Your task to perform on an android device: turn on location history Image 0: 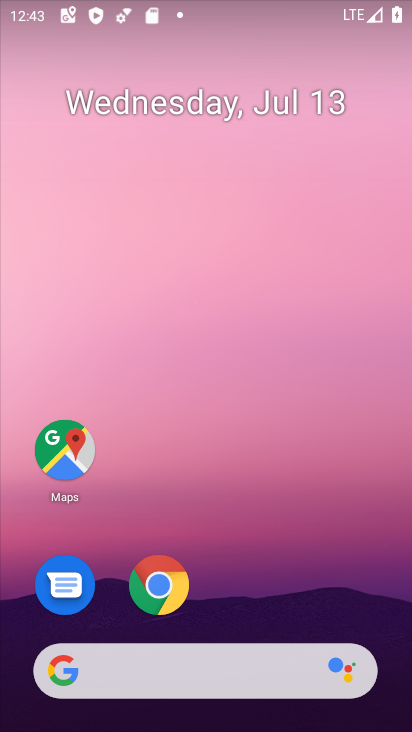
Step 0: drag from (231, 349) to (210, 31)
Your task to perform on an android device: turn on location history Image 1: 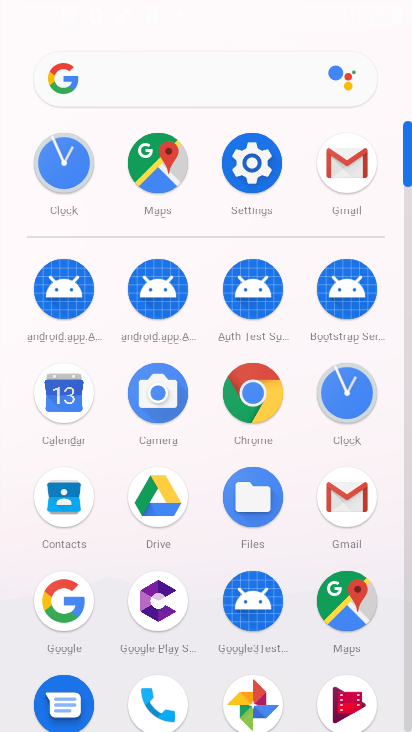
Step 1: click (254, 162)
Your task to perform on an android device: turn on location history Image 2: 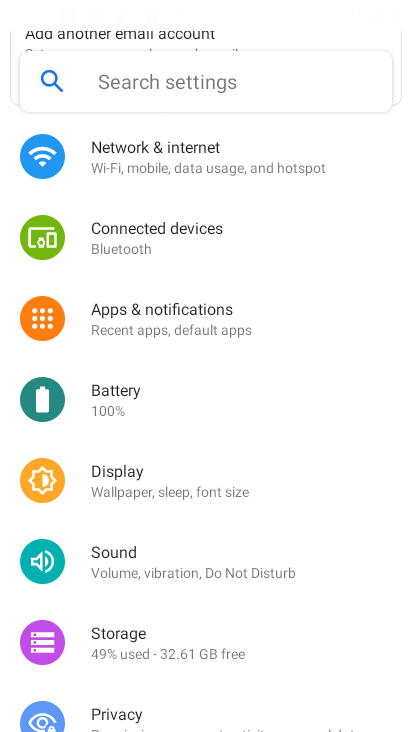
Step 2: drag from (146, 488) to (154, 342)
Your task to perform on an android device: turn on location history Image 3: 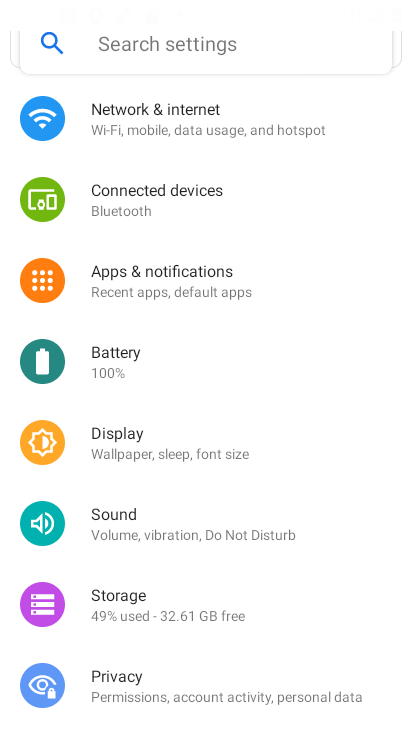
Step 3: drag from (147, 642) to (141, 177)
Your task to perform on an android device: turn on location history Image 4: 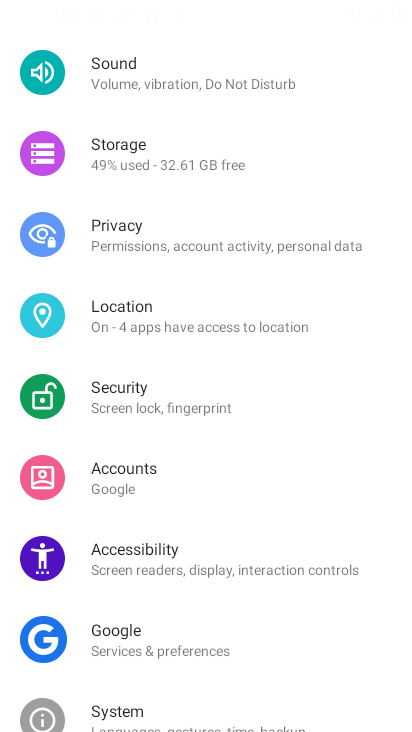
Step 4: click (122, 321)
Your task to perform on an android device: turn on location history Image 5: 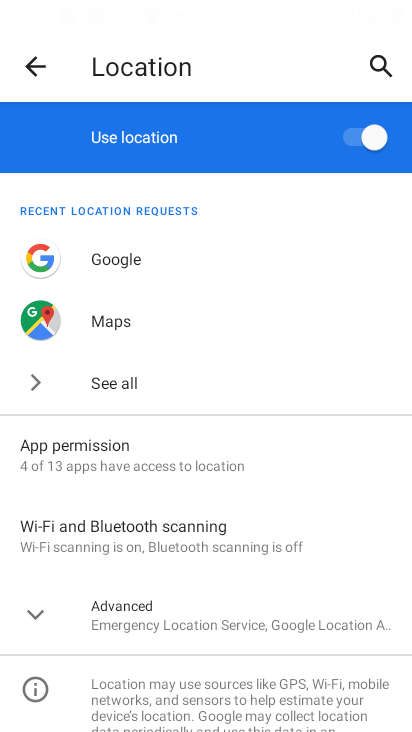
Step 5: click (117, 623)
Your task to perform on an android device: turn on location history Image 6: 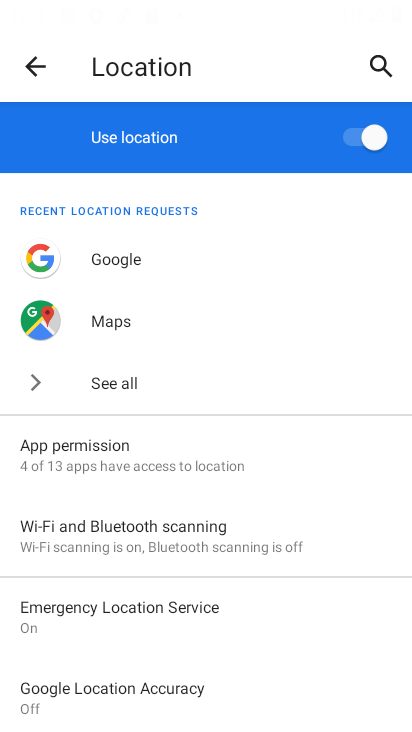
Step 6: drag from (211, 693) to (210, 343)
Your task to perform on an android device: turn on location history Image 7: 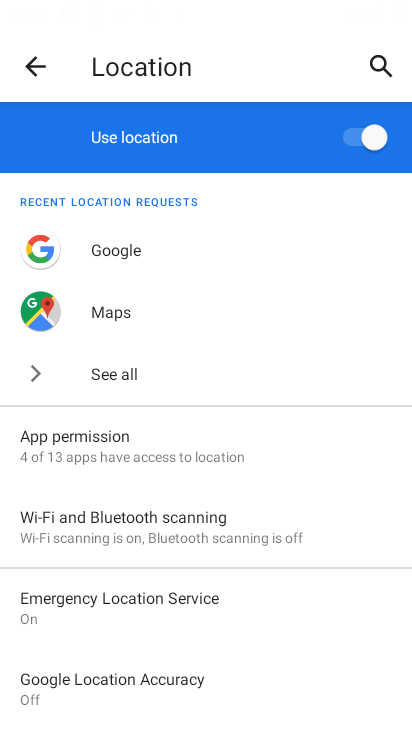
Step 7: drag from (132, 573) to (132, 496)
Your task to perform on an android device: turn on location history Image 8: 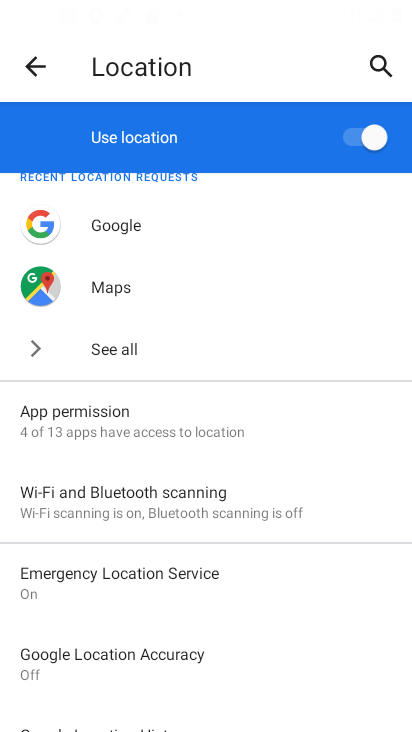
Step 8: click (185, 424)
Your task to perform on an android device: turn on location history Image 9: 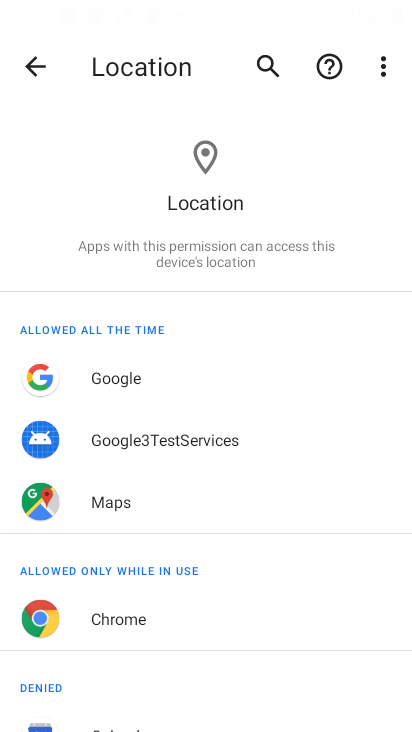
Step 9: click (36, 70)
Your task to perform on an android device: turn on location history Image 10: 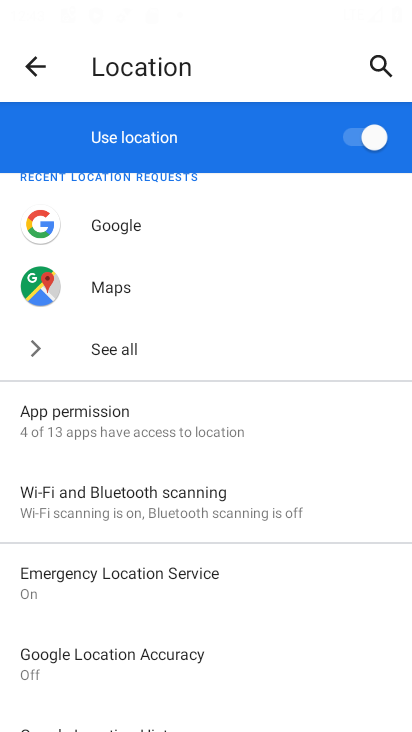
Step 10: drag from (155, 614) to (176, 344)
Your task to perform on an android device: turn on location history Image 11: 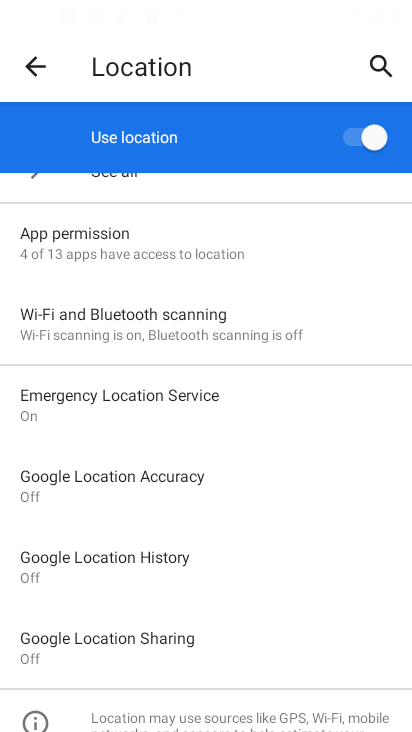
Step 11: click (130, 561)
Your task to perform on an android device: turn on location history Image 12: 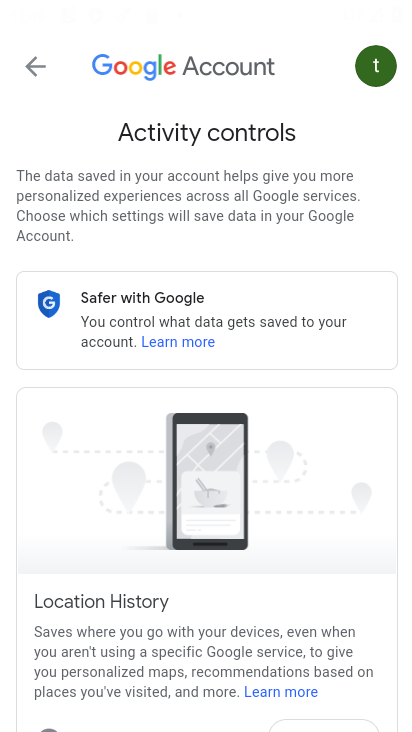
Step 12: drag from (236, 551) to (310, 199)
Your task to perform on an android device: turn on location history Image 13: 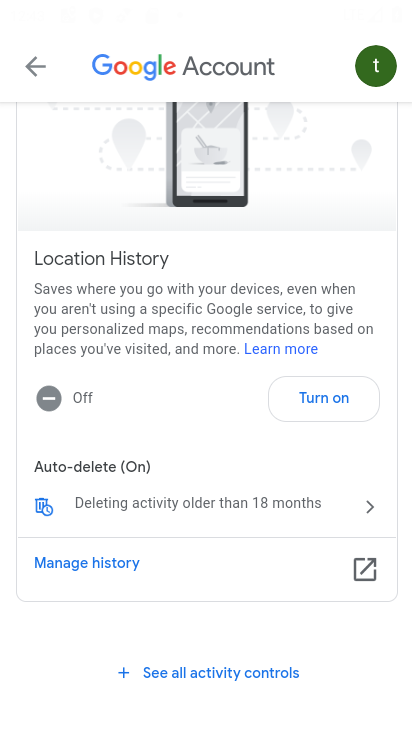
Step 13: click (301, 400)
Your task to perform on an android device: turn on location history Image 14: 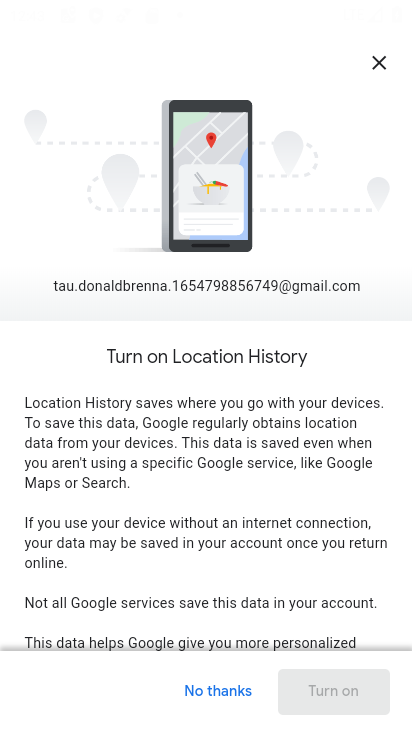
Step 14: drag from (304, 578) to (312, 271)
Your task to perform on an android device: turn on location history Image 15: 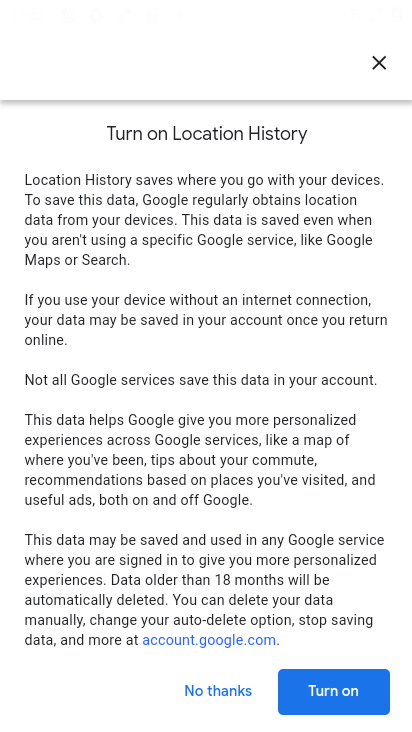
Step 15: click (314, 685)
Your task to perform on an android device: turn on location history Image 16: 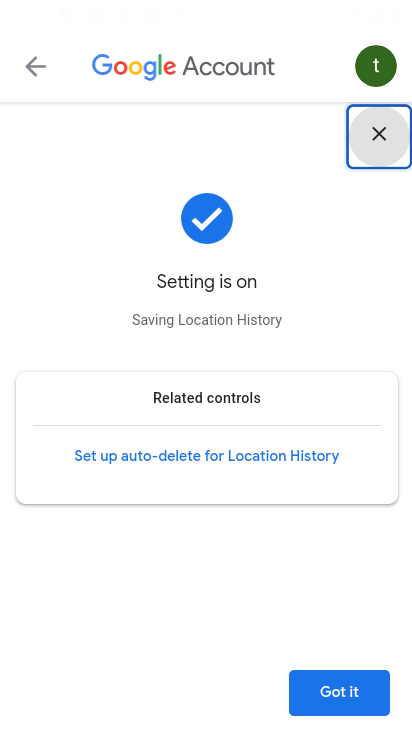
Step 16: click (314, 685)
Your task to perform on an android device: turn on location history Image 17: 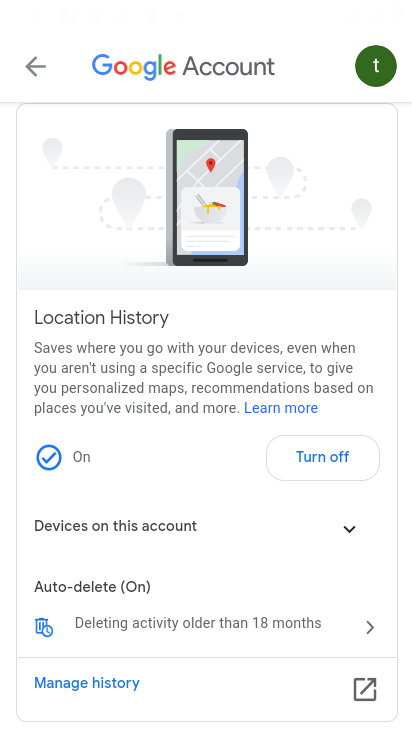
Step 17: task complete